Your task to perform on an android device: Open Amazon Image 0: 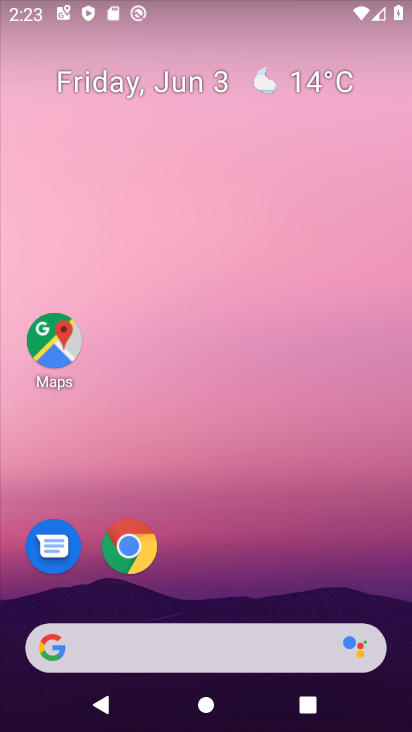
Step 0: drag from (337, 514) to (405, 258)
Your task to perform on an android device: Open Amazon Image 1: 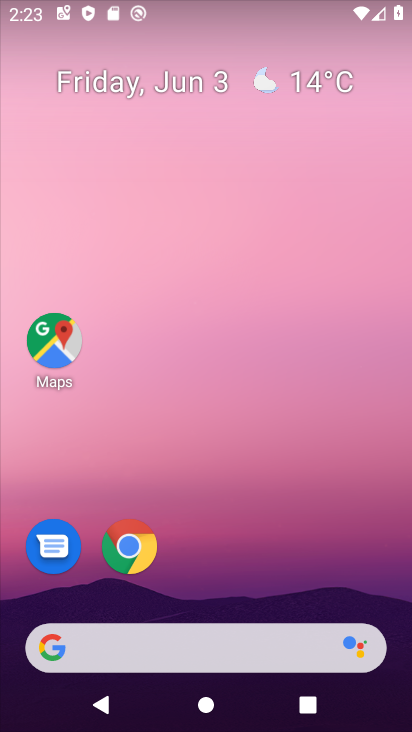
Step 1: drag from (336, 591) to (389, 78)
Your task to perform on an android device: Open Amazon Image 2: 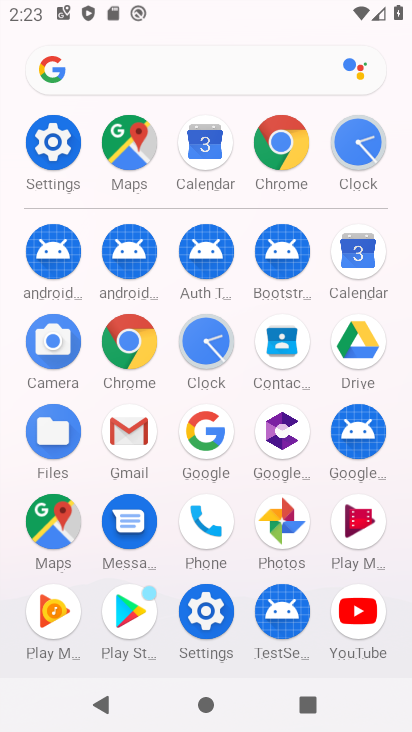
Step 2: click (285, 155)
Your task to perform on an android device: Open Amazon Image 3: 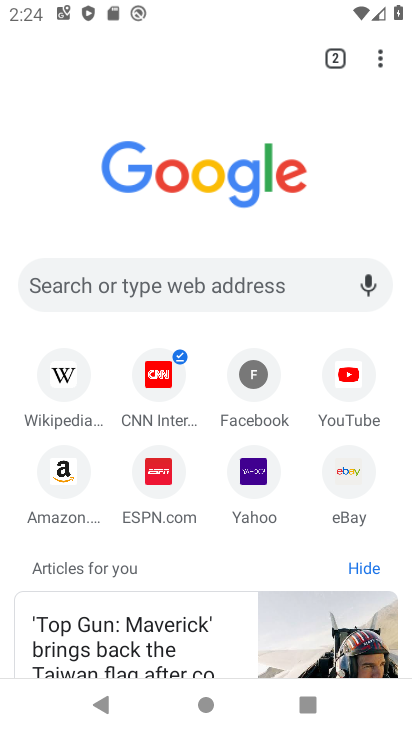
Step 3: click (71, 493)
Your task to perform on an android device: Open Amazon Image 4: 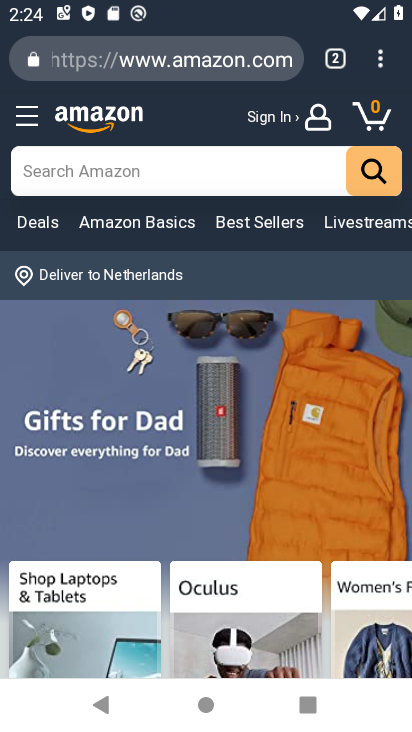
Step 4: task complete